Your task to perform on an android device: toggle translation in the chrome app Image 0: 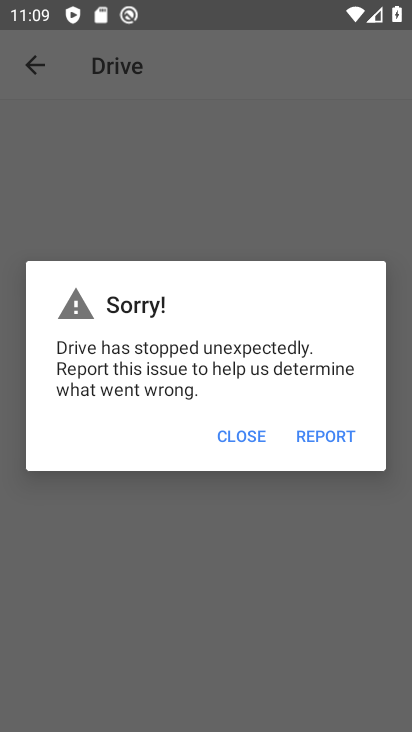
Step 0: press home button
Your task to perform on an android device: toggle translation in the chrome app Image 1: 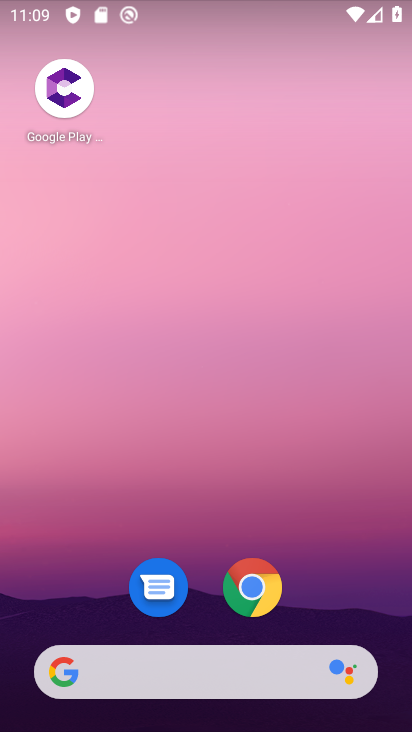
Step 1: click (238, 602)
Your task to perform on an android device: toggle translation in the chrome app Image 2: 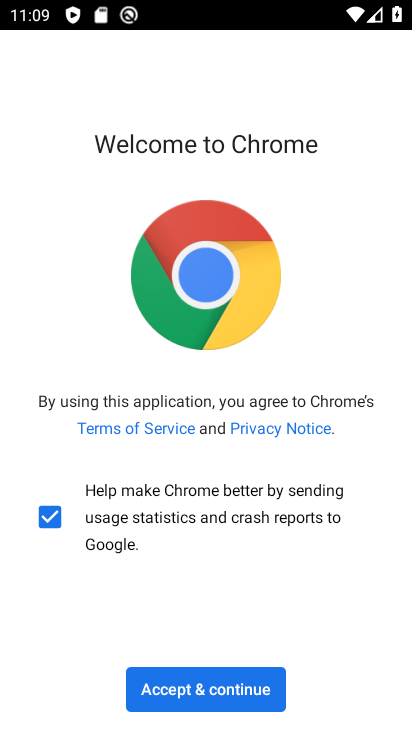
Step 2: click (203, 679)
Your task to perform on an android device: toggle translation in the chrome app Image 3: 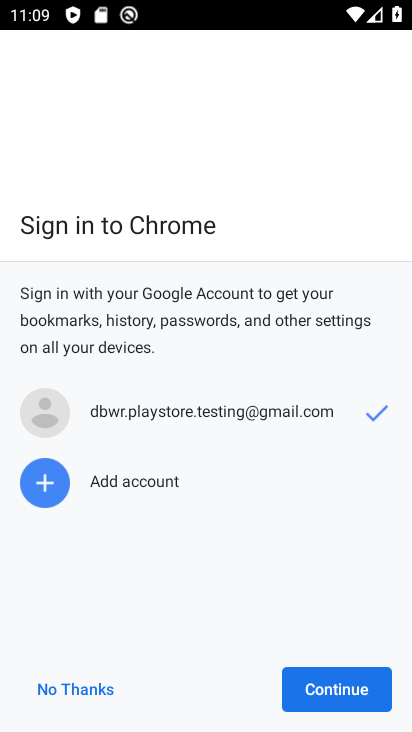
Step 3: click (203, 679)
Your task to perform on an android device: toggle translation in the chrome app Image 4: 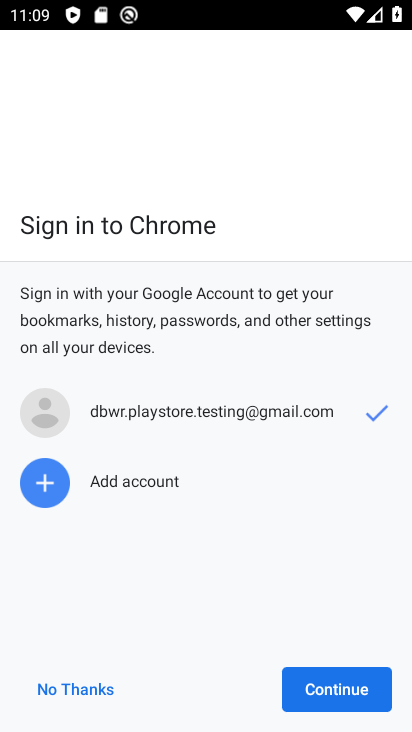
Step 4: click (307, 682)
Your task to perform on an android device: toggle translation in the chrome app Image 5: 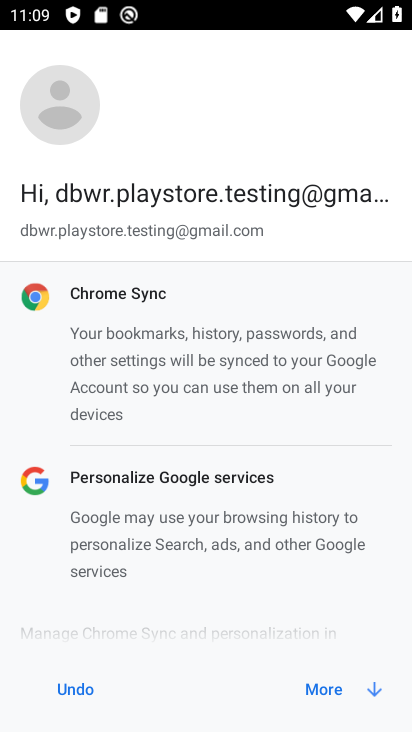
Step 5: click (307, 682)
Your task to perform on an android device: toggle translation in the chrome app Image 6: 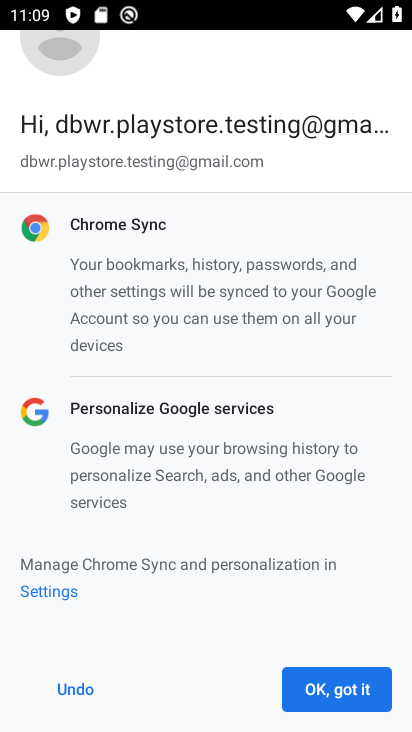
Step 6: click (307, 682)
Your task to perform on an android device: toggle translation in the chrome app Image 7: 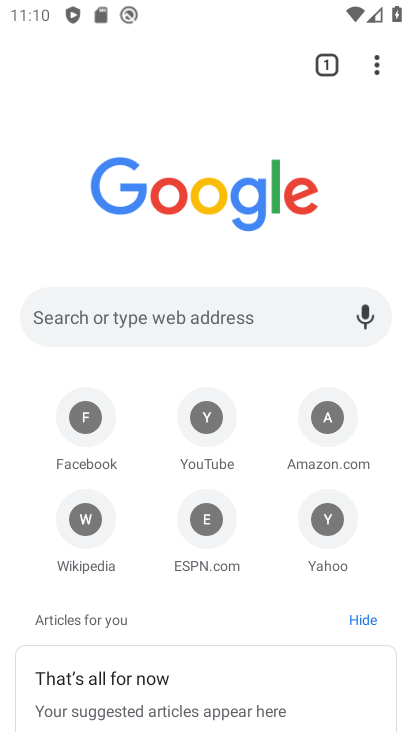
Step 7: click (383, 60)
Your task to perform on an android device: toggle translation in the chrome app Image 8: 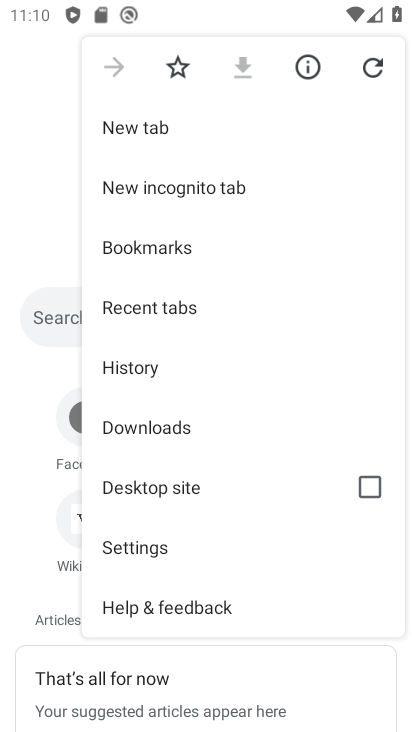
Step 8: click (161, 557)
Your task to perform on an android device: toggle translation in the chrome app Image 9: 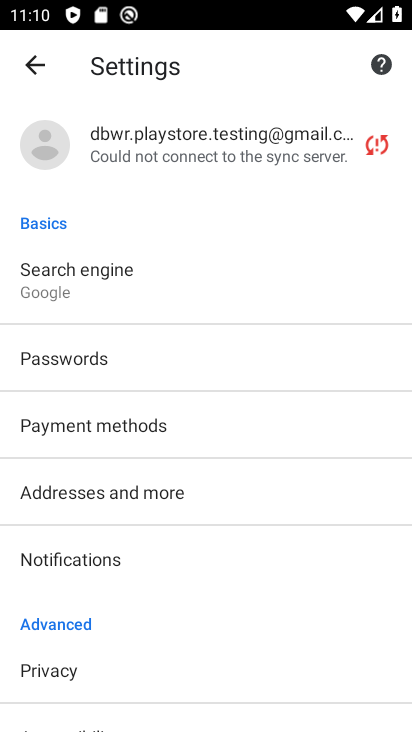
Step 9: drag from (161, 557) to (211, 200)
Your task to perform on an android device: toggle translation in the chrome app Image 10: 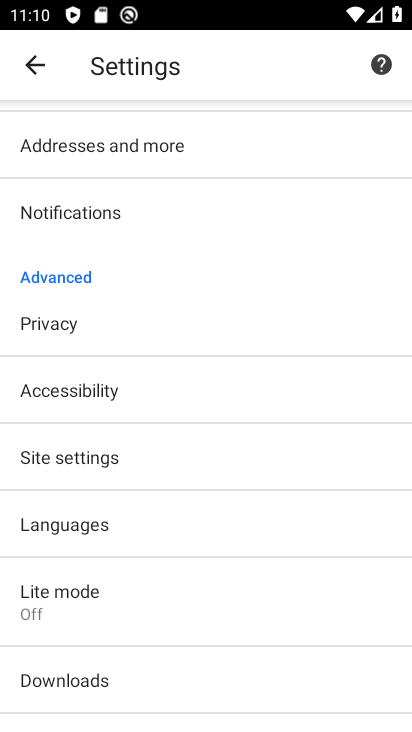
Step 10: click (142, 503)
Your task to perform on an android device: toggle translation in the chrome app Image 11: 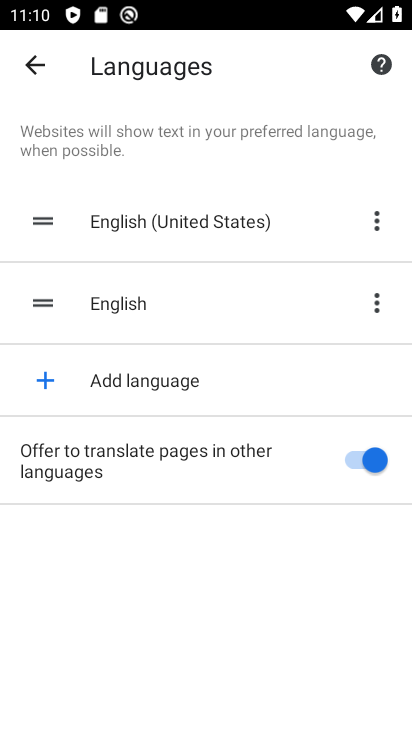
Step 11: click (376, 468)
Your task to perform on an android device: toggle translation in the chrome app Image 12: 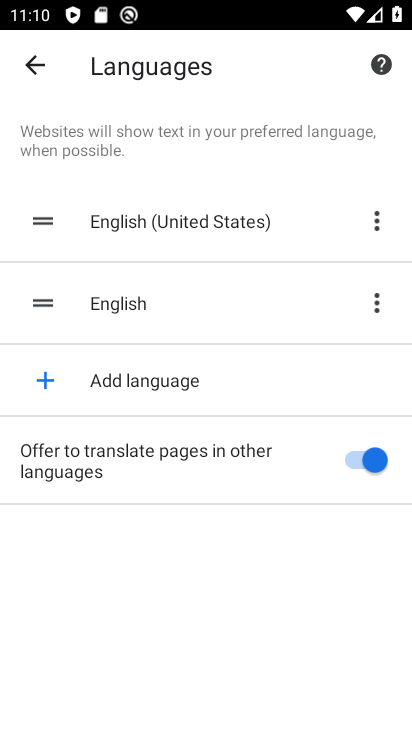
Step 12: click (376, 468)
Your task to perform on an android device: toggle translation in the chrome app Image 13: 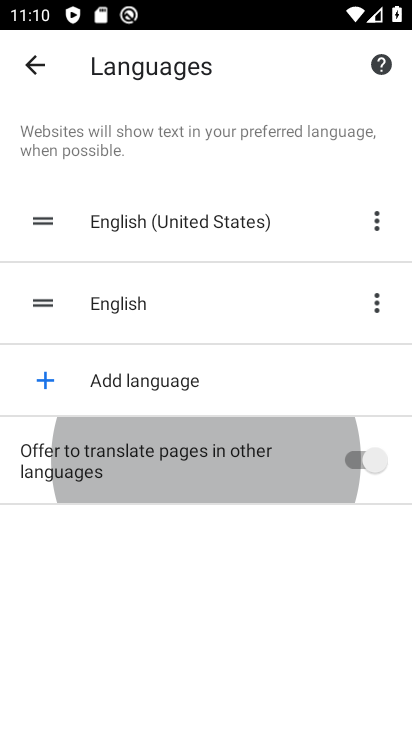
Step 13: click (376, 468)
Your task to perform on an android device: toggle translation in the chrome app Image 14: 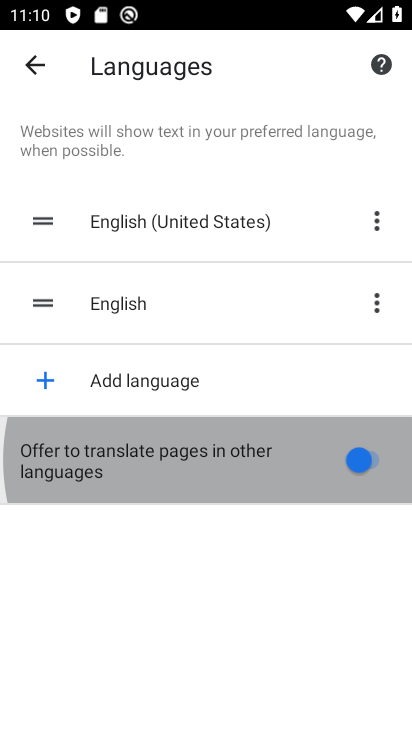
Step 14: click (376, 468)
Your task to perform on an android device: toggle translation in the chrome app Image 15: 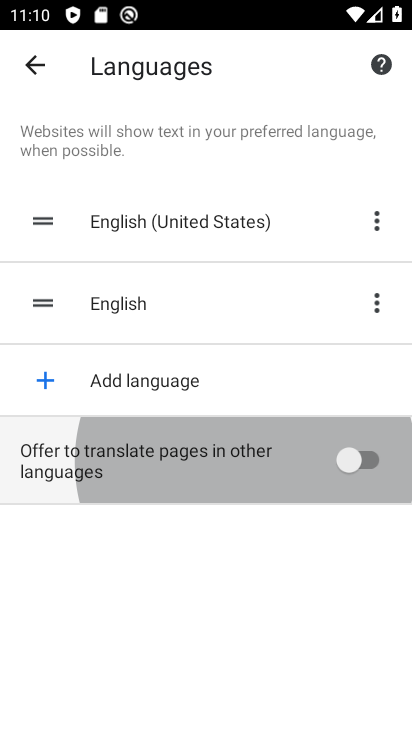
Step 15: click (376, 468)
Your task to perform on an android device: toggle translation in the chrome app Image 16: 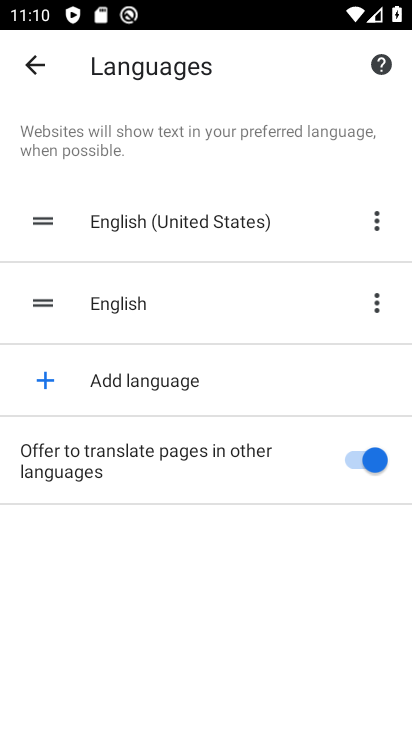
Step 16: click (376, 468)
Your task to perform on an android device: toggle translation in the chrome app Image 17: 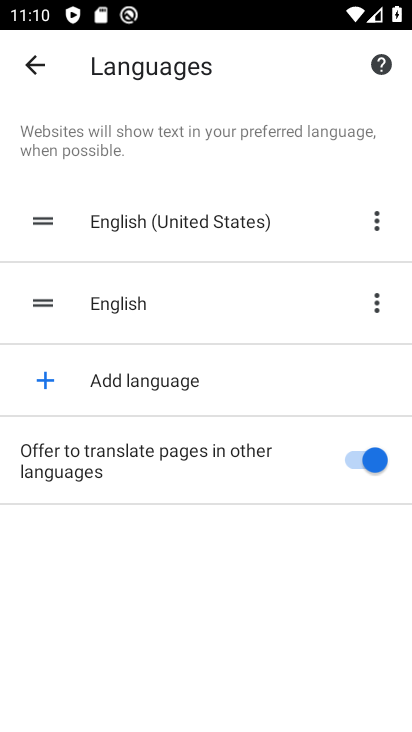
Step 17: click (376, 468)
Your task to perform on an android device: toggle translation in the chrome app Image 18: 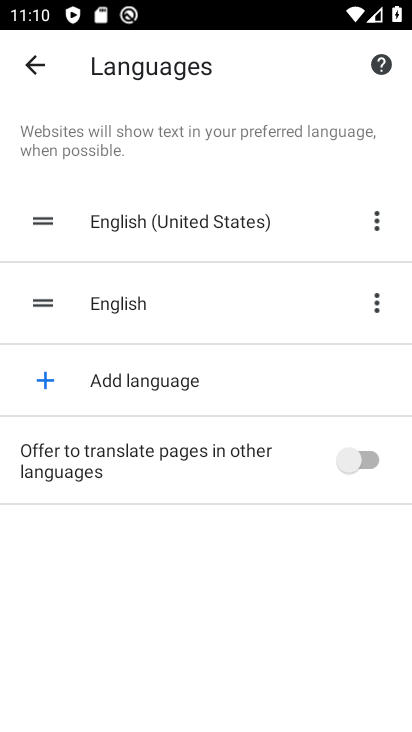
Step 18: click (376, 468)
Your task to perform on an android device: toggle translation in the chrome app Image 19: 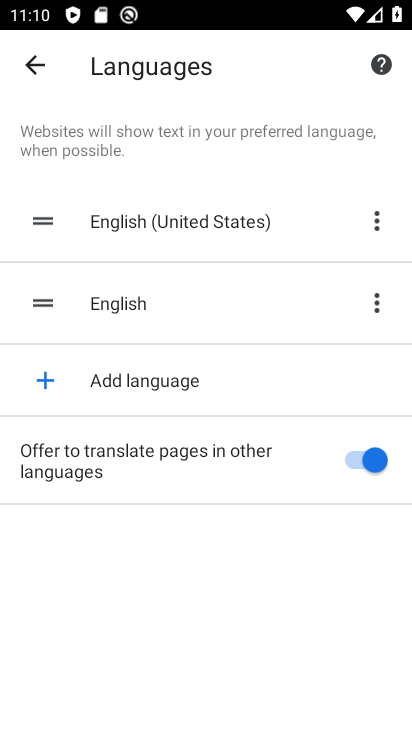
Step 19: task complete